Your task to perform on an android device: Is it going to rain today? Image 0: 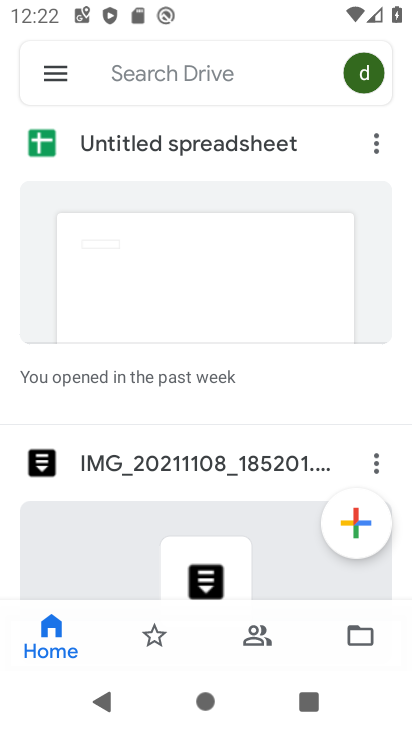
Step 0: press home button
Your task to perform on an android device: Is it going to rain today? Image 1: 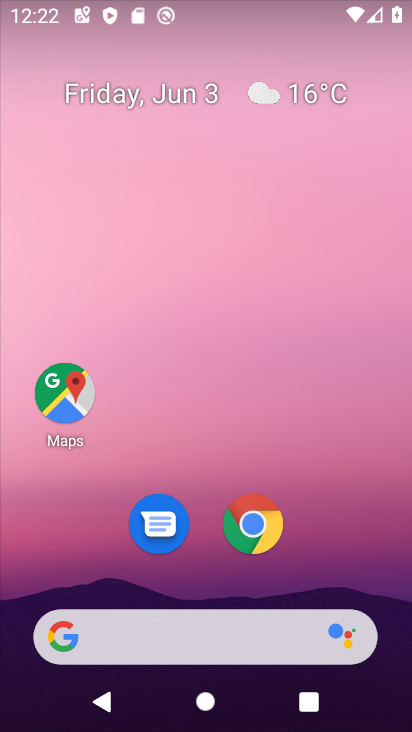
Step 1: click (310, 94)
Your task to perform on an android device: Is it going to rain today? Image 2: 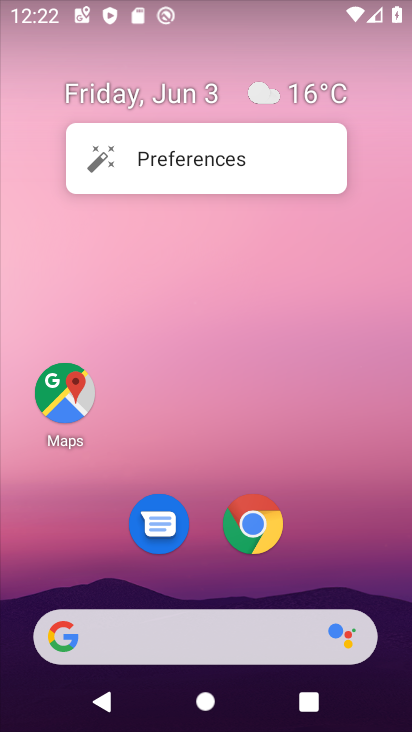
Step 2: click (325, 88)
Your task to perform on an android device: Is it going to rain today? Image 3: 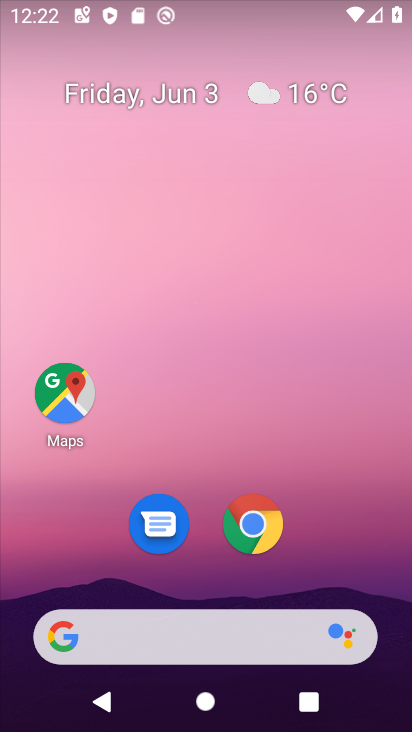
Step 3: click (291, 90)
Your task to perform on an android device: Is it going to rain today? Image 4: 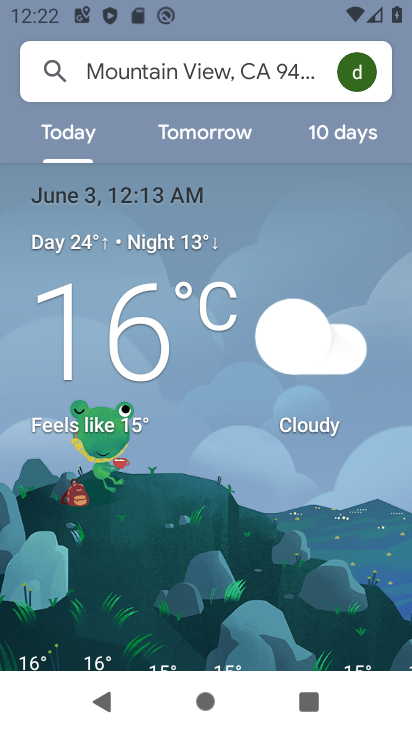
Step 4: task complete